Your task to perform on an android device: change notifications settings Image 0: 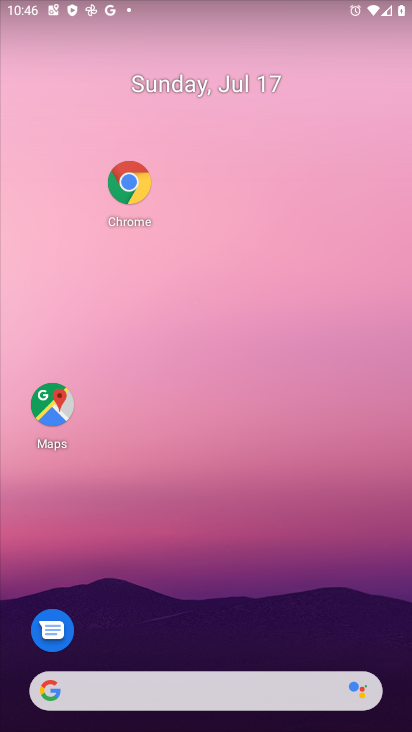
Step 0: drag from (172, 533) to (229, 54)
Your task to perform on an android device: change notifications settings Image 1: 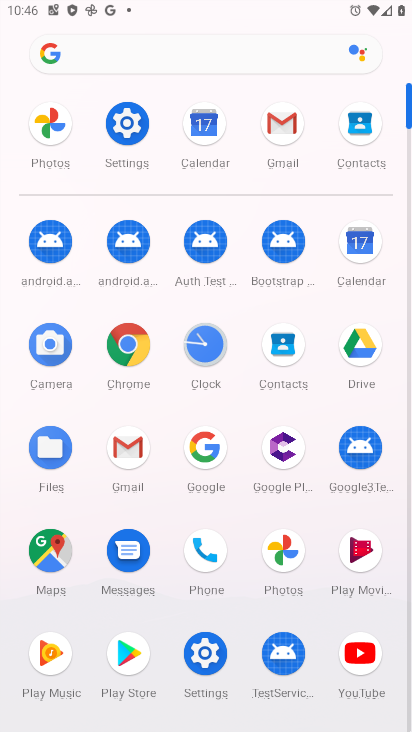
Step 1: click (137, 130)
Your task to perform on an android device: change notifications settings Image 2: 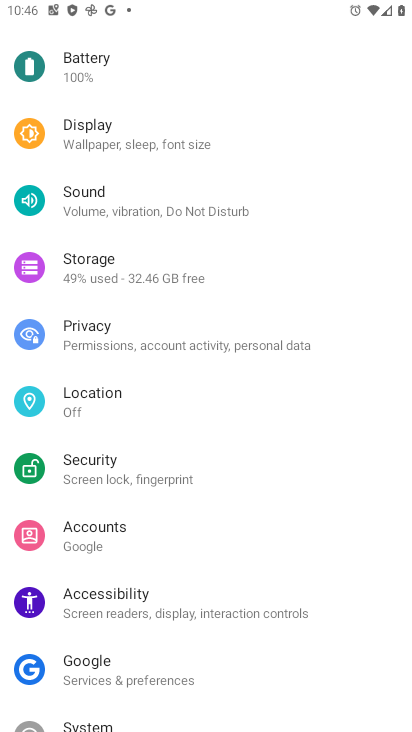
Step 2: drag from (135, 180) to (135, 484)
Your task to perform on an android device: change notifications settings Image 3: 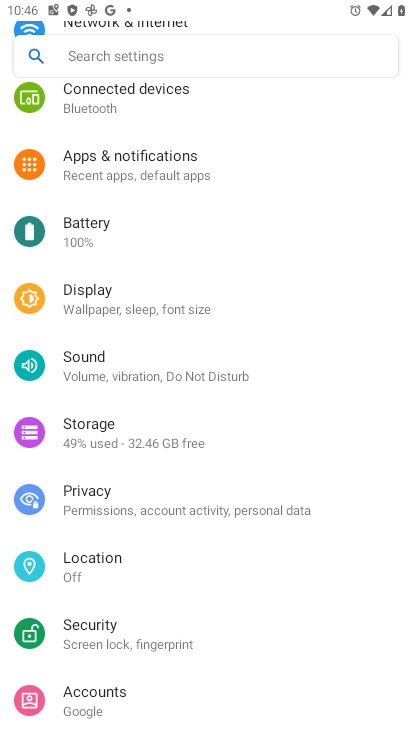
Step 3: click (147, 177)
Your task to perform on an android device: change notifications settings Image 4: 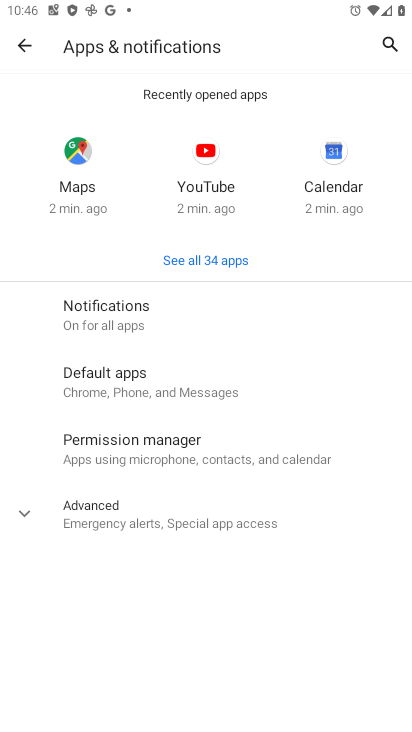
Step 4: click (99, 315)
Your task to perform on an android device: change notifications settings Image 5: 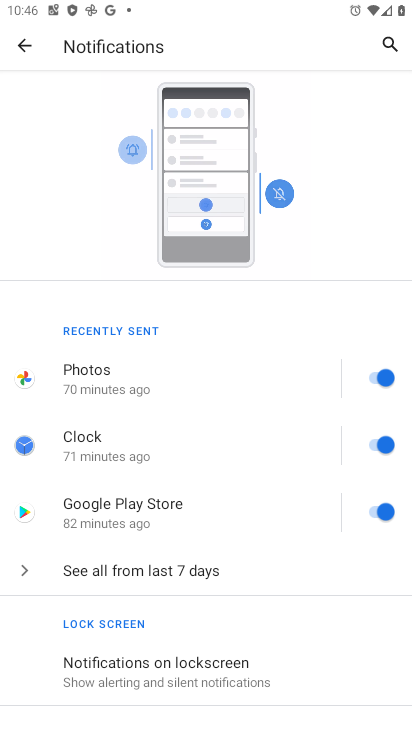
Step 5: click (178, 652)
Your task to perform on an android device: change notifications settings Image 6: 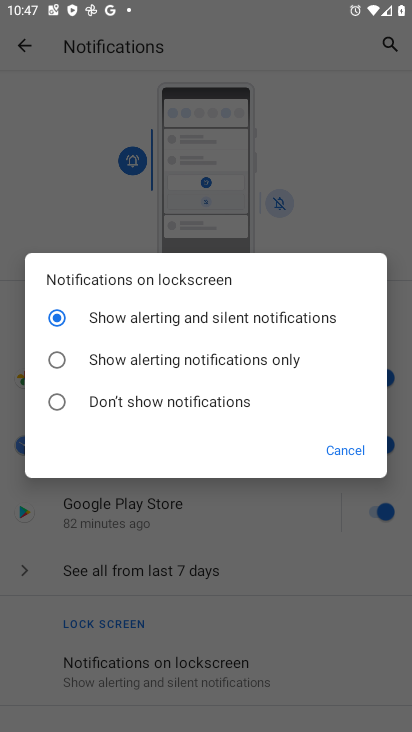
Step 6: click (57, 399)
Your task to perform on an android device: change notifications settings Image 7: 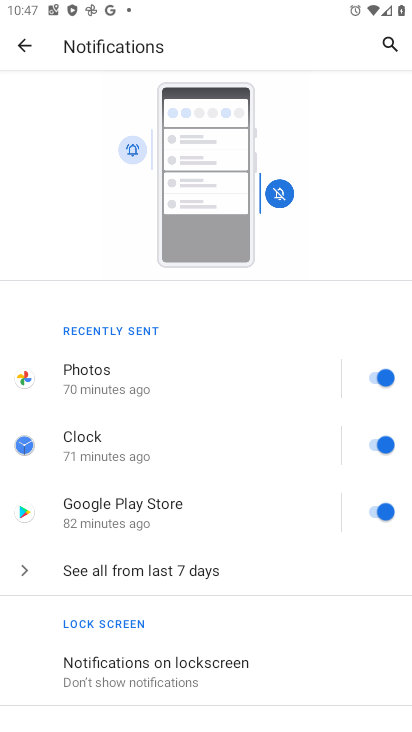
Step 7: task complete